Your task to perform on an android device: toggle show notifications on the lock screen Image 0: 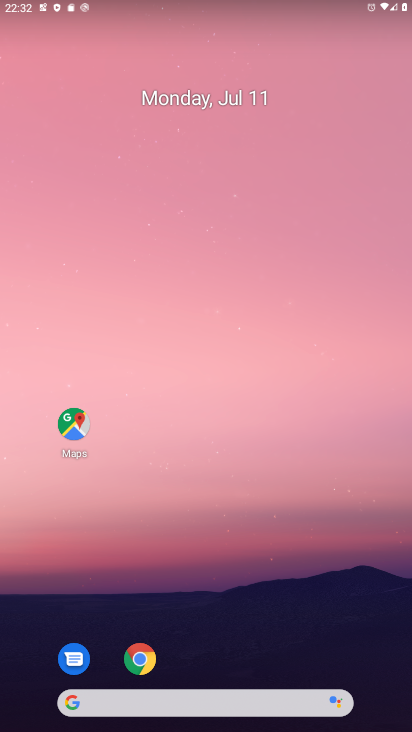
Step 0: drag from (207, 678) to (255, 153)
Your task to perform on an android device: toggle show notifications on the lock screen Image 1: 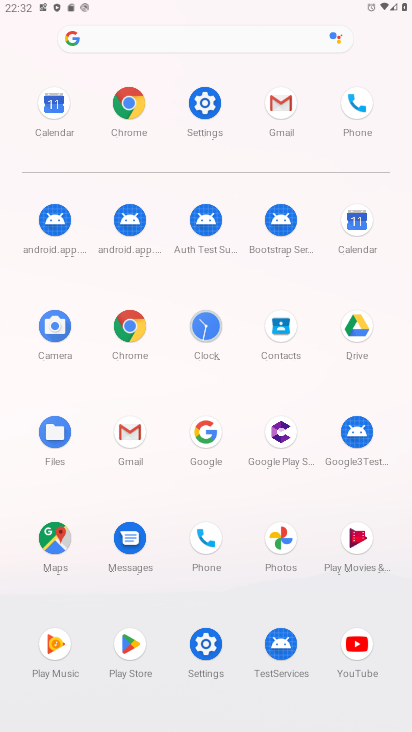
Step 1: click (204, 104)
Your task to perform on an android device: toggle show notifications on the lock screen Image 2: 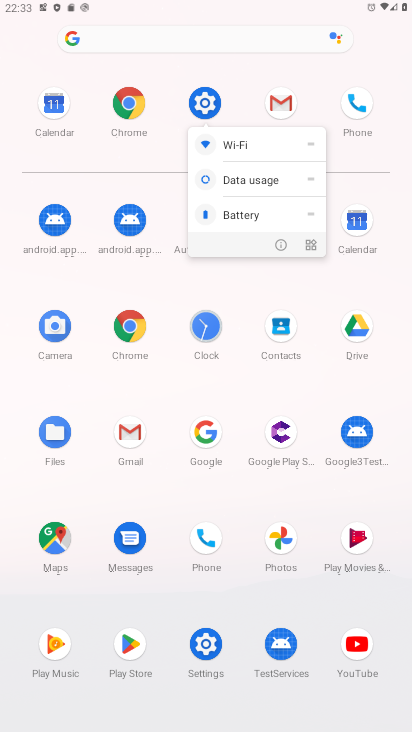
Step 2: click (281, 245)
Your task to perform on an android device: toggle show notifications on the lock screen Image 3: 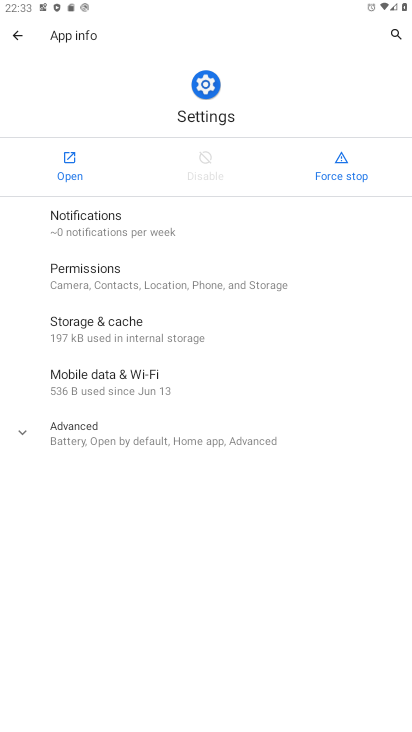
Step 3: click (65, 168)
Your task to perform on an android device: toggle show notifications on the lock screen Image 4: 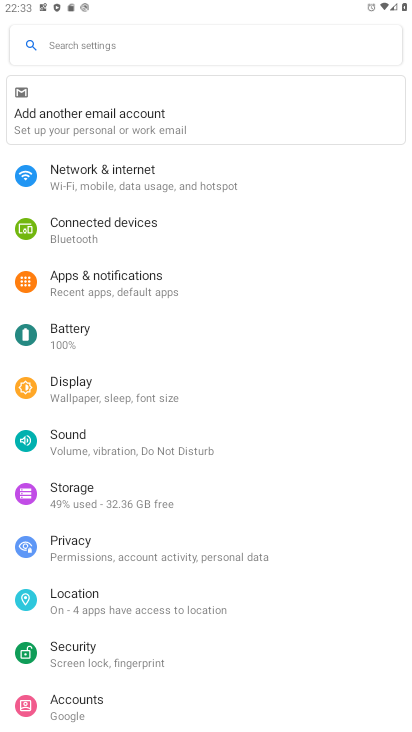
Step 4: click (144, 283)
Your task to perform on an android device: toggle show notifications on the lock screen Image 5: 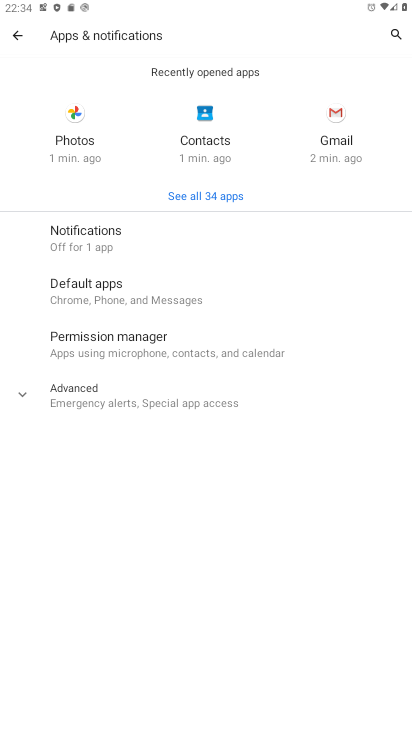
Step 5: click (165, 231)
Your task to perform on an android device: toggle show notifications on the lock screen Image 6: 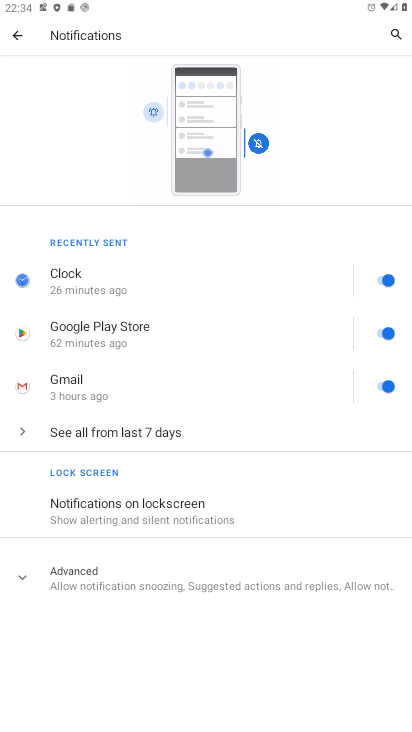
Step 6: click (208, 514)
Your task to perform on an android device: toggle show notifications on the lock screen Image 7: 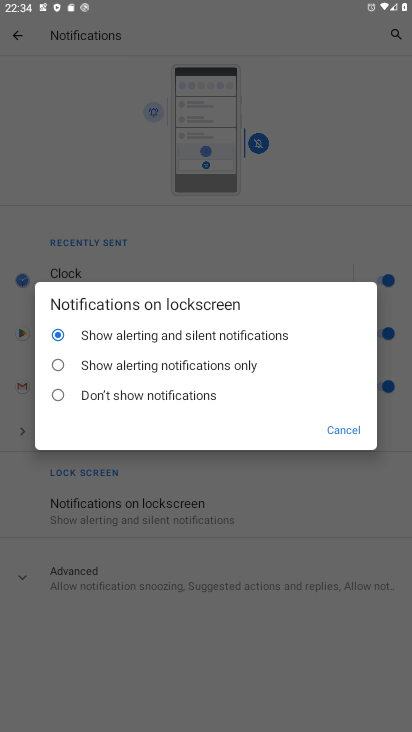
Step 7: drag from (204, 561) to (290, 225)
Your task to perform on an android device: toggle show notifications on the lock screen Image 8: 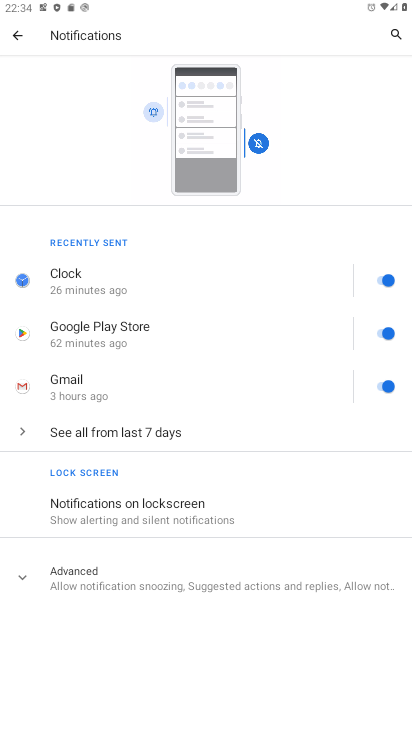
Step 8: click (159, 508)
Your task to perform on an android device: toggle show notifications on the lock screen Image 9: 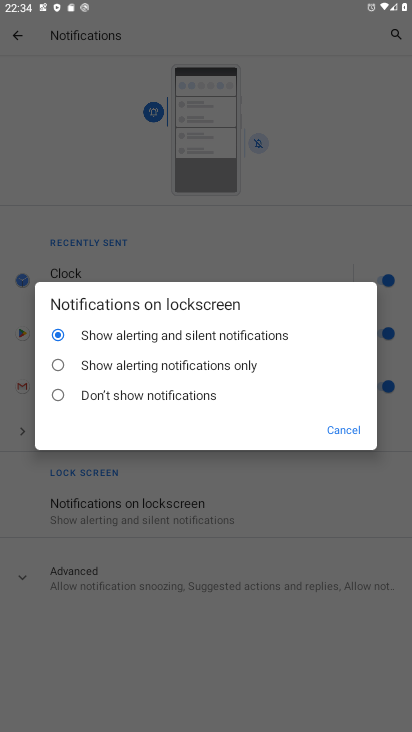
Step 9: drag from (246, 661) to (246, 336)
Your task to perform on an android device: toggle show notifications on the lock screen Image 10: 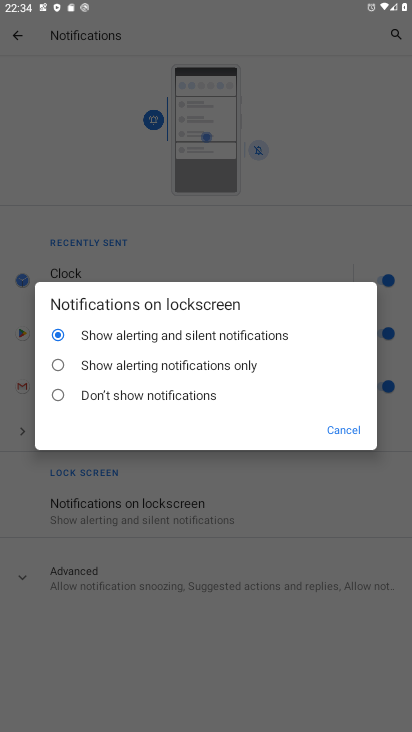
Step 10: click (146, 521)
Your task to perform on an android device: toggle show notifications on the lock screen Image 11: 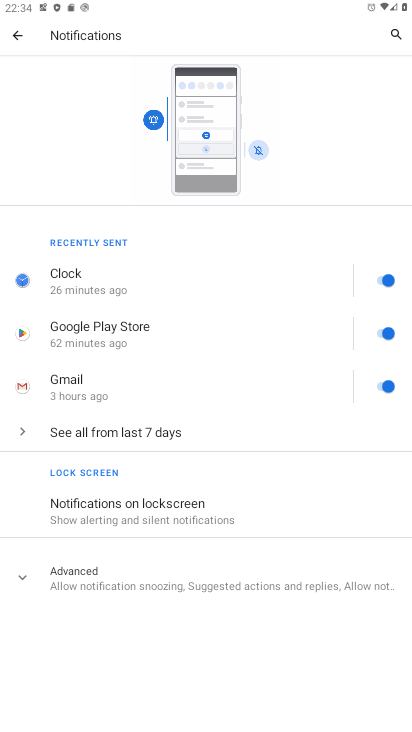
Step 11: click (146, 521)
Your task to perform on an android device: toggle show notifications on the lock screen Image 12: 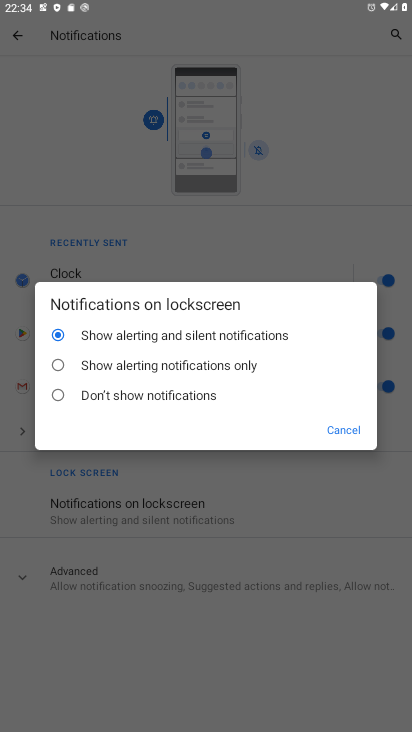
Step 12: task complete